Your task to perform on an android device: make emails show in primary in the gmail app Image 0: 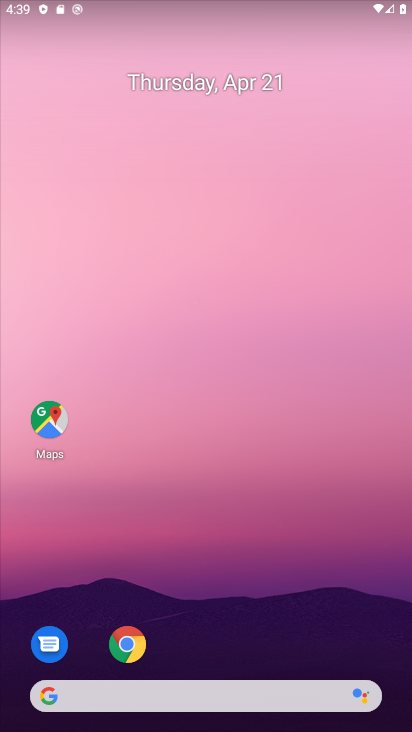
Step 0: drag from (248, 620) to (273, 217)
Your task to perform on an android device: make emails show in primary in the gmail app Image 1: 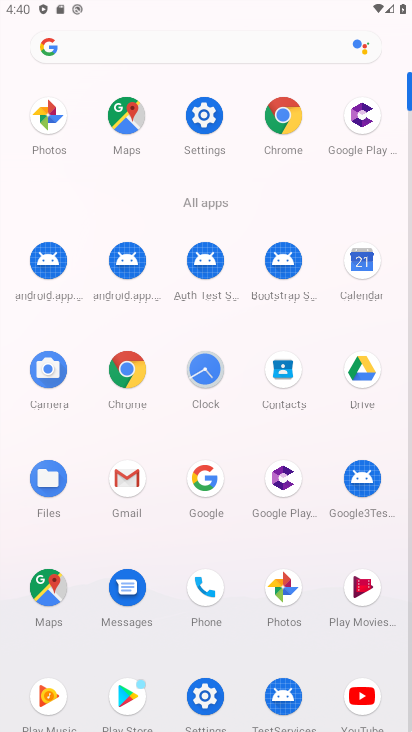
Step 1: click (127, 481)
Your task to perform on an android device: make emails show in primary in the gmail app Image 2: 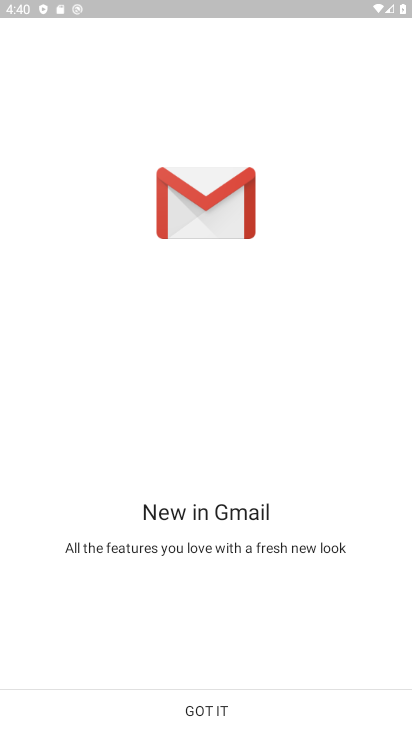
Step 2: click (223, 710)
Your task to perform on an android device: make emails show in primary in the gmail app Image 3: 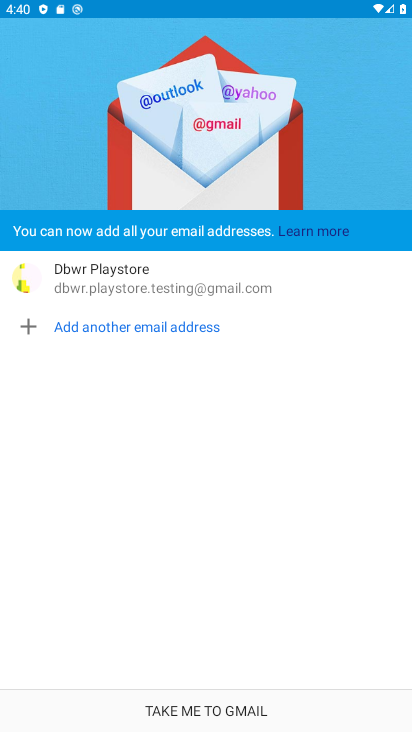
Step 3: click (223, 708)
Your task to perform on an android device: make emails show in primary in the gmail app Image 4: 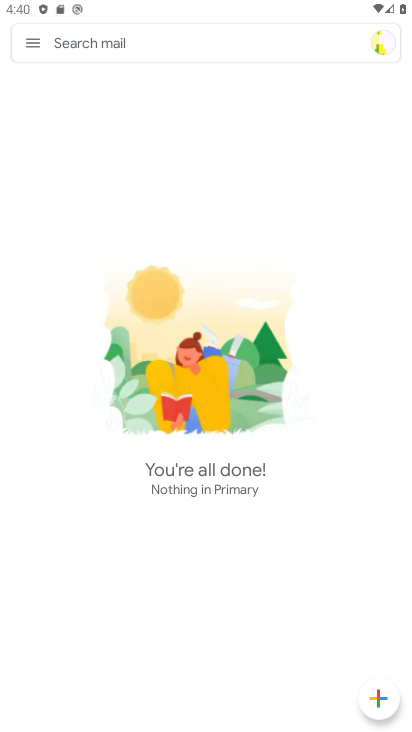
Step 4: click (32, 44)
Your task to perform on an android device: make emails show in primary in the gmail app Image 5: 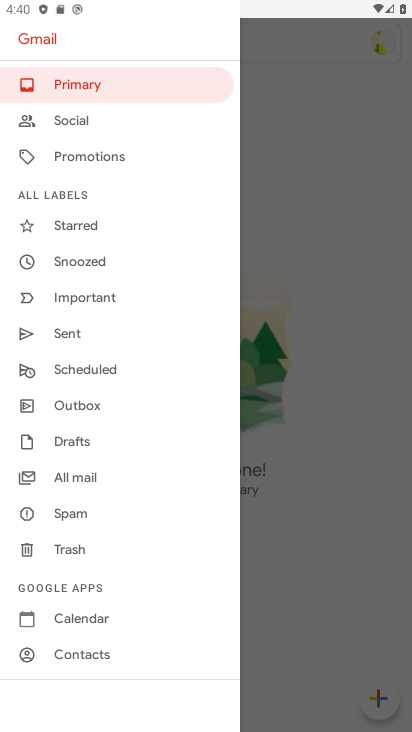
Step 5: drag from (87, 617) to (154, 332)
Your task to perform on an android device: make emails show in primary in the gmail app Image 6: 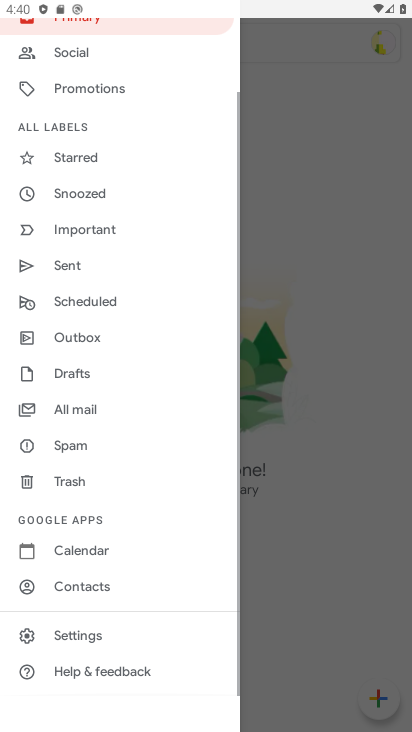
Step 6: click (89, 627)
Your task to perform on an android device: make emails show in primary in the gmail app Image 7: 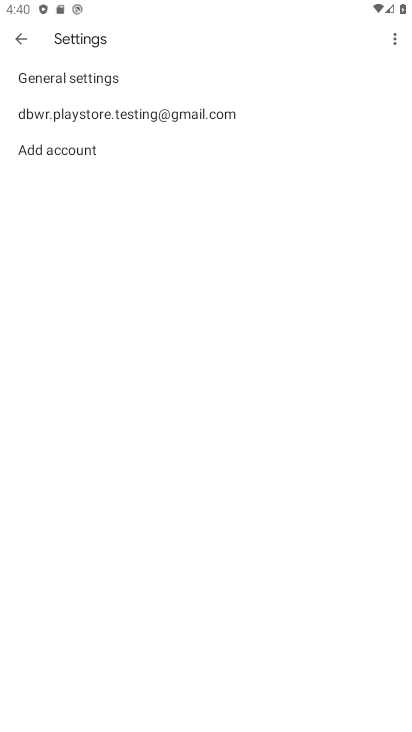
Step 7: click (156, 114)
Your task to perform on an android device: make emails show in primary in the gmail app Image 8: 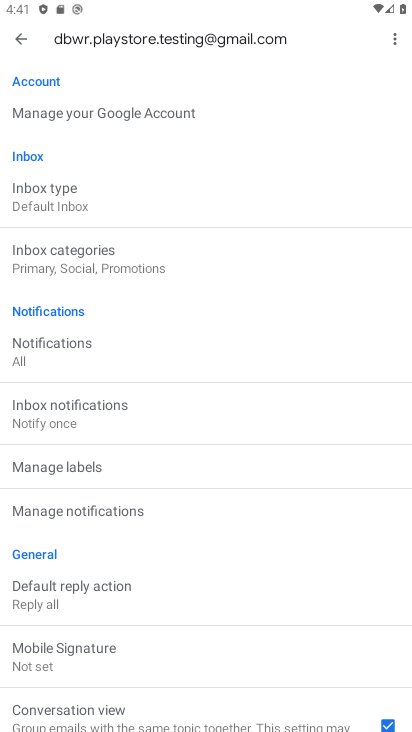
Step 8: click (74, 250)
Your task to perform on an android device: make emails show in primary in the gmail app Image 9: 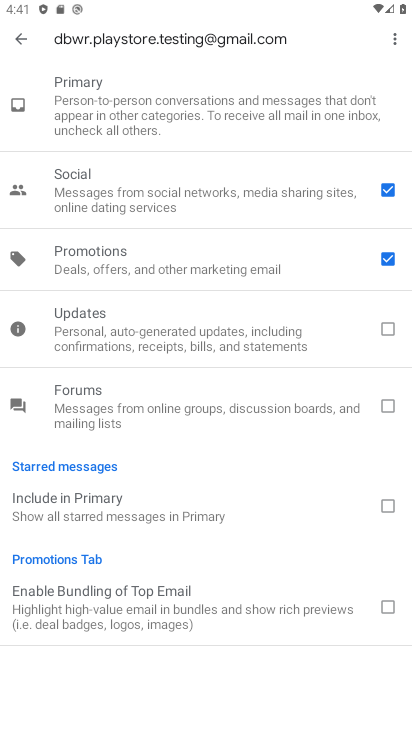
Step 9: task complete